Your task to perform on an android device: install app "Microsoft Authenticator" Image 0: 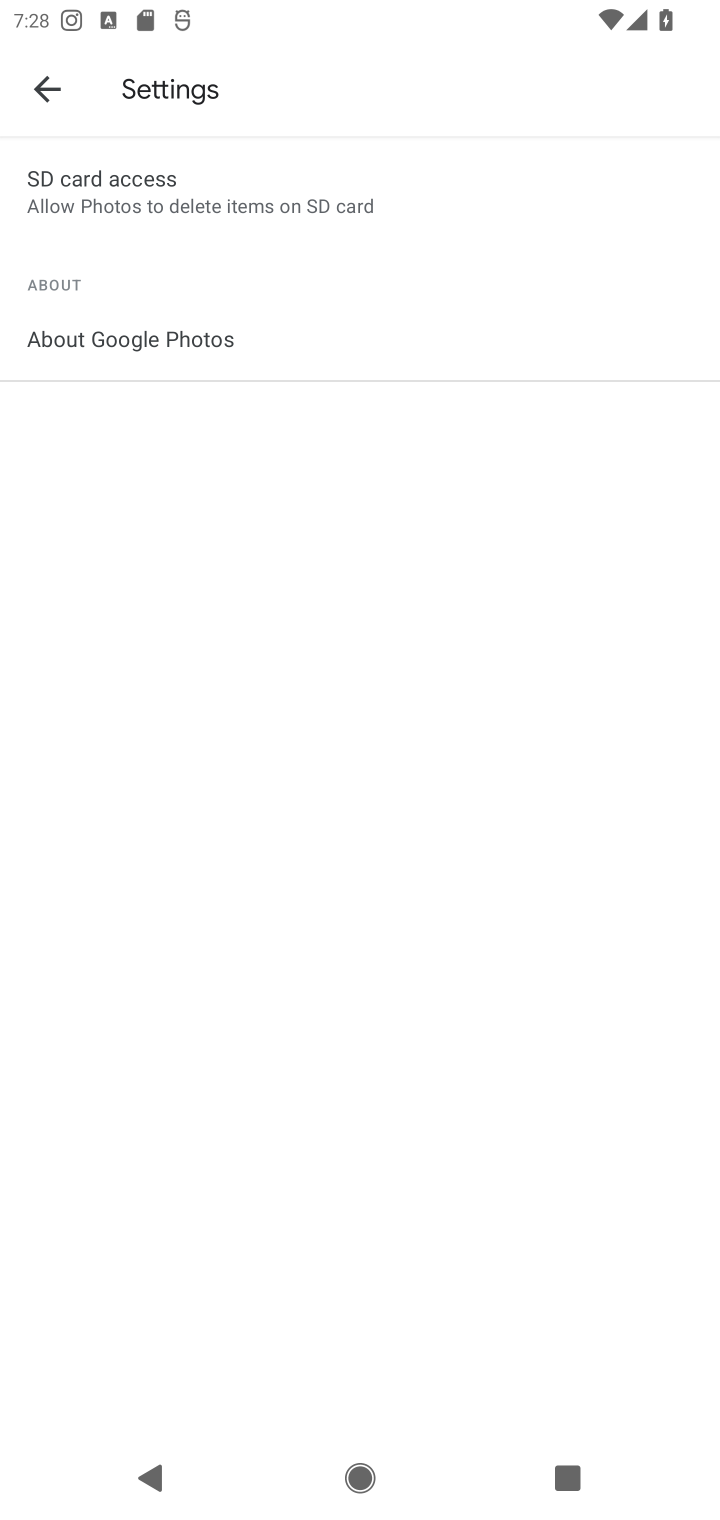
Step 0: press home button
Your task to perform on an android device: install app "Microsoft Authenticator" Image 1: 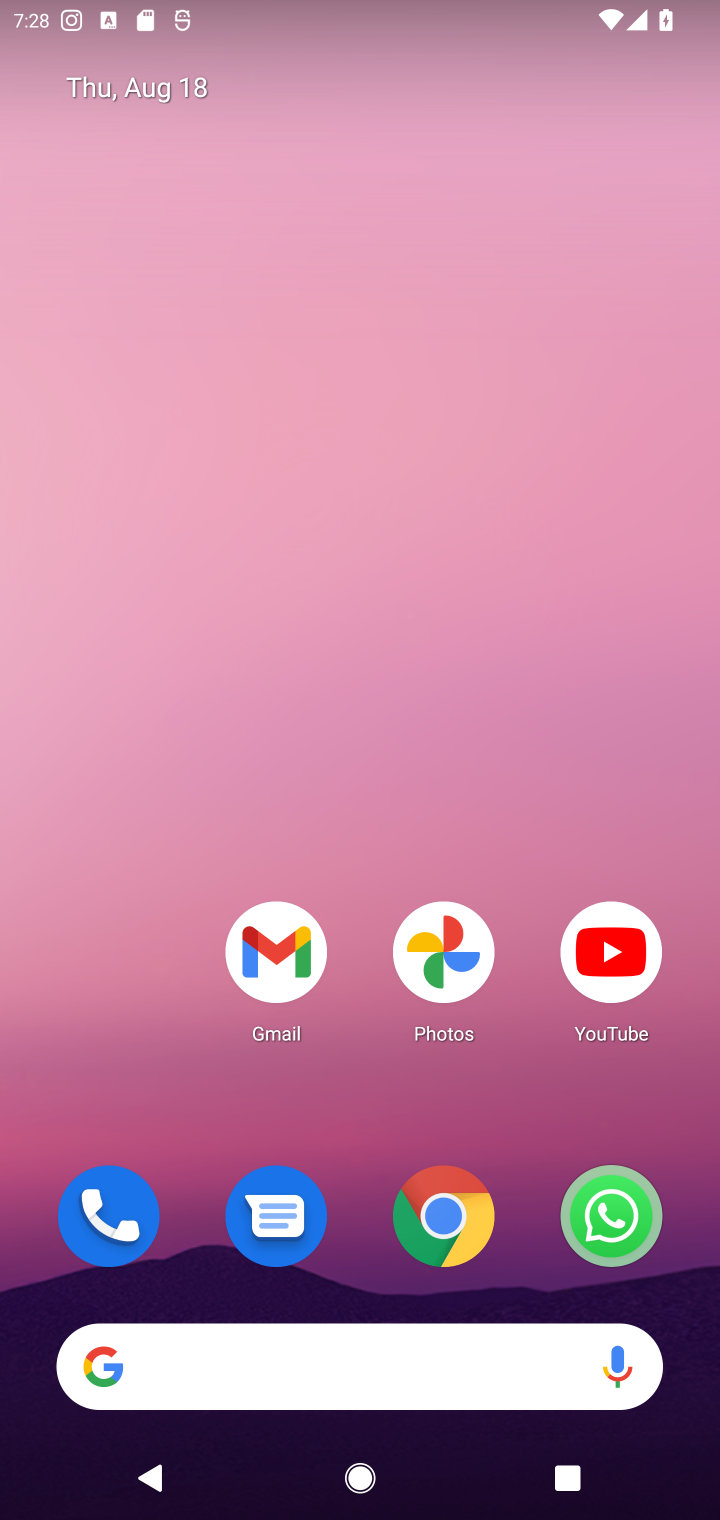
Step 1: drag from (335, 1109) to (368, 243)
Your task to perform on an android device: install app "Microsoft Authenticator" Image 2: 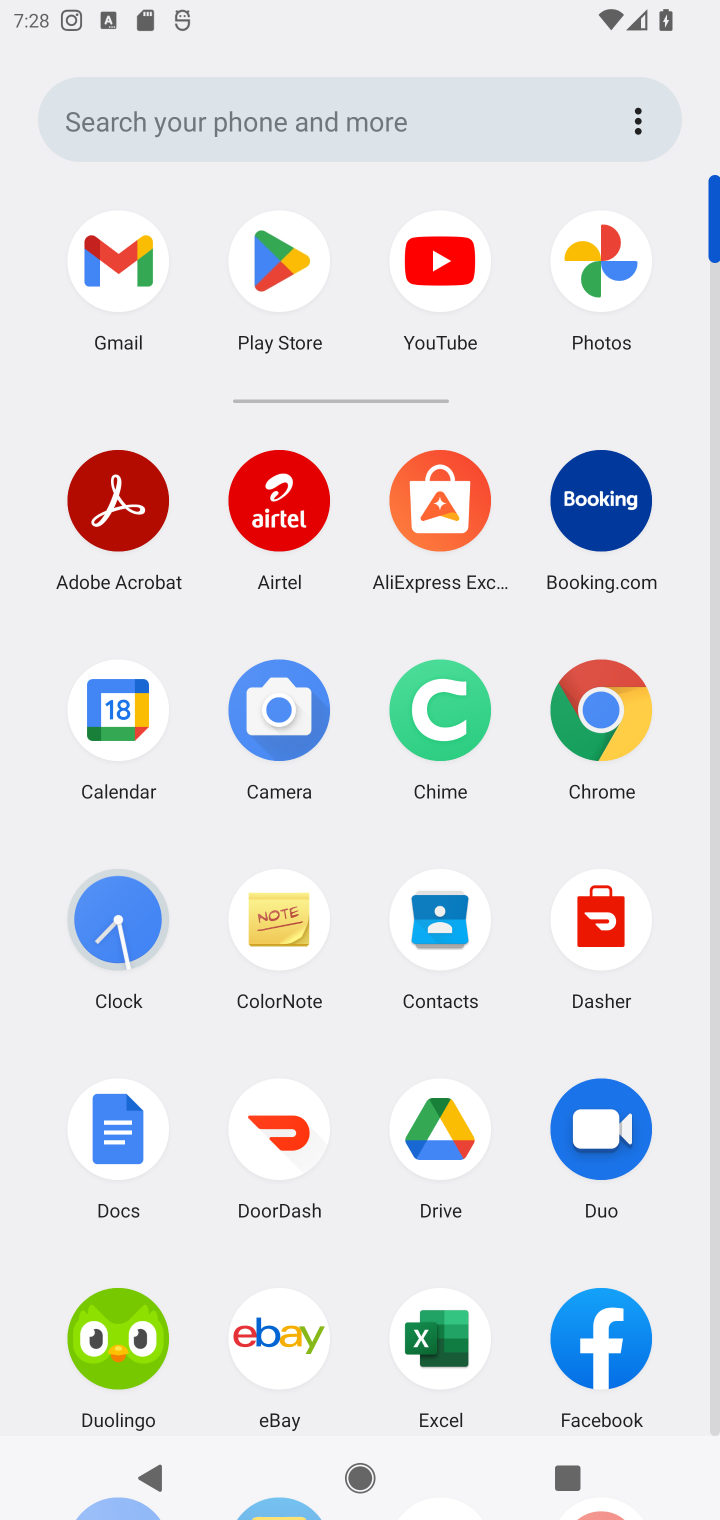
Step 2: click (309, 281)
Your task to perform on an android device: install app "Microsoft Authenticator" Image 3: 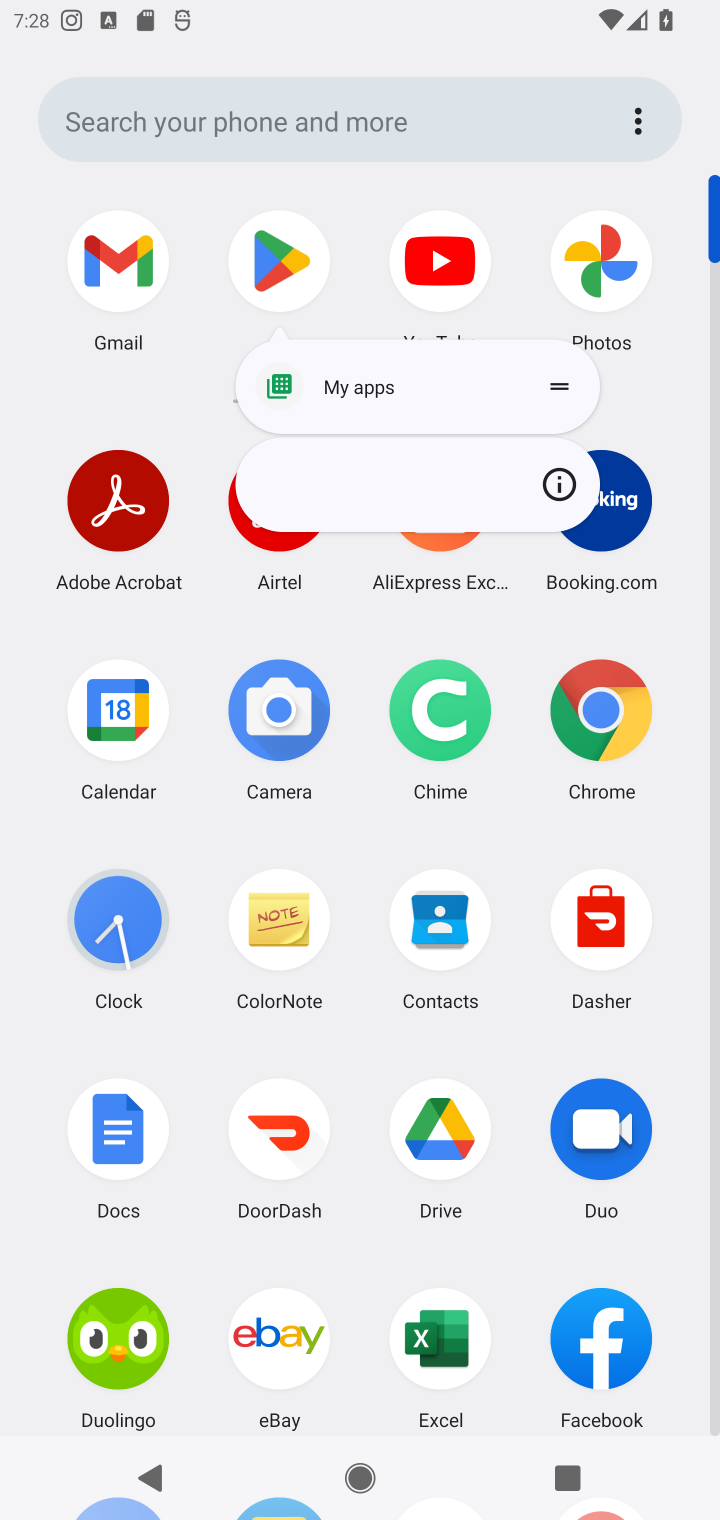
Step 3: click (292, 272)
Your task to perform on an android device: install app "Microsoft Authenticator" Image 4: 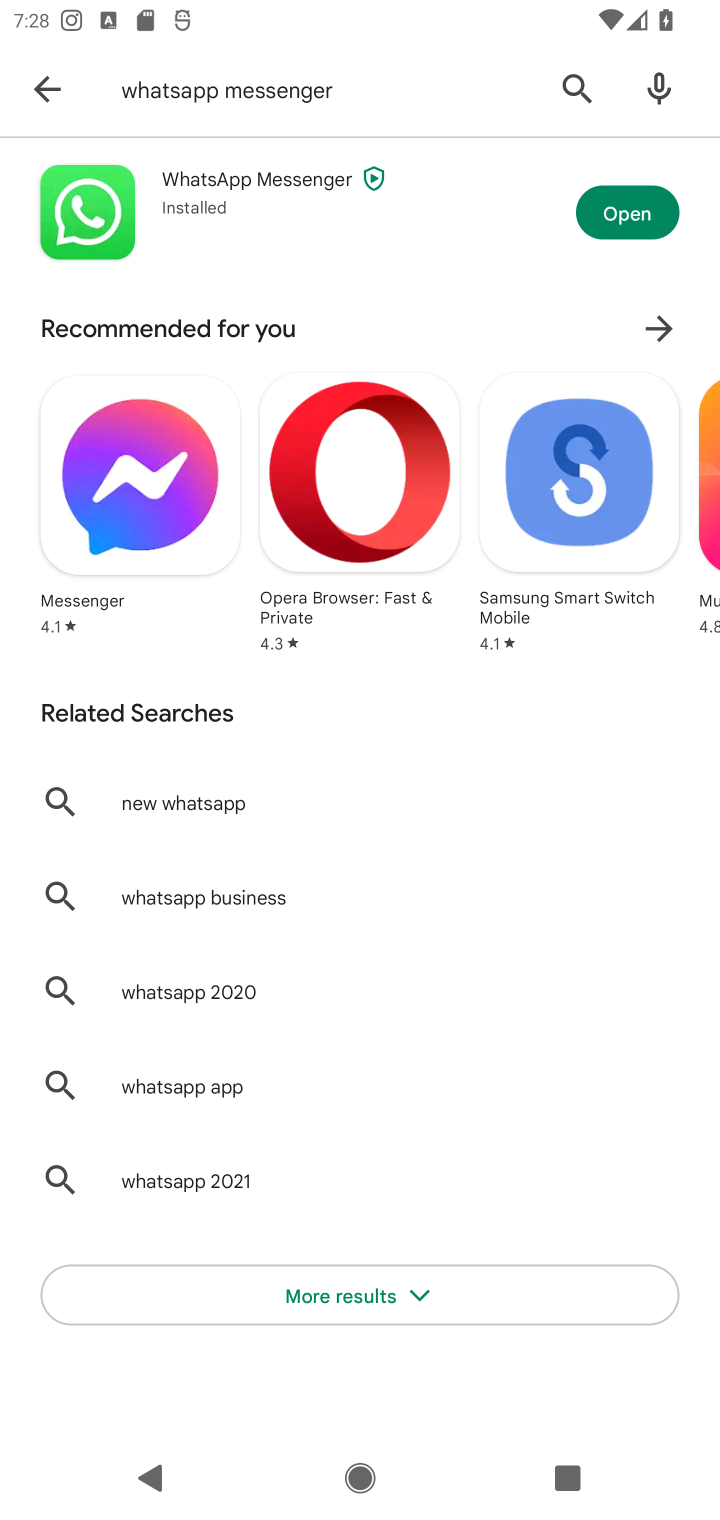
Step 4: click (574, 85)
Your task to perform on an android device: install app "Microsoft Authenticator" Image 5: 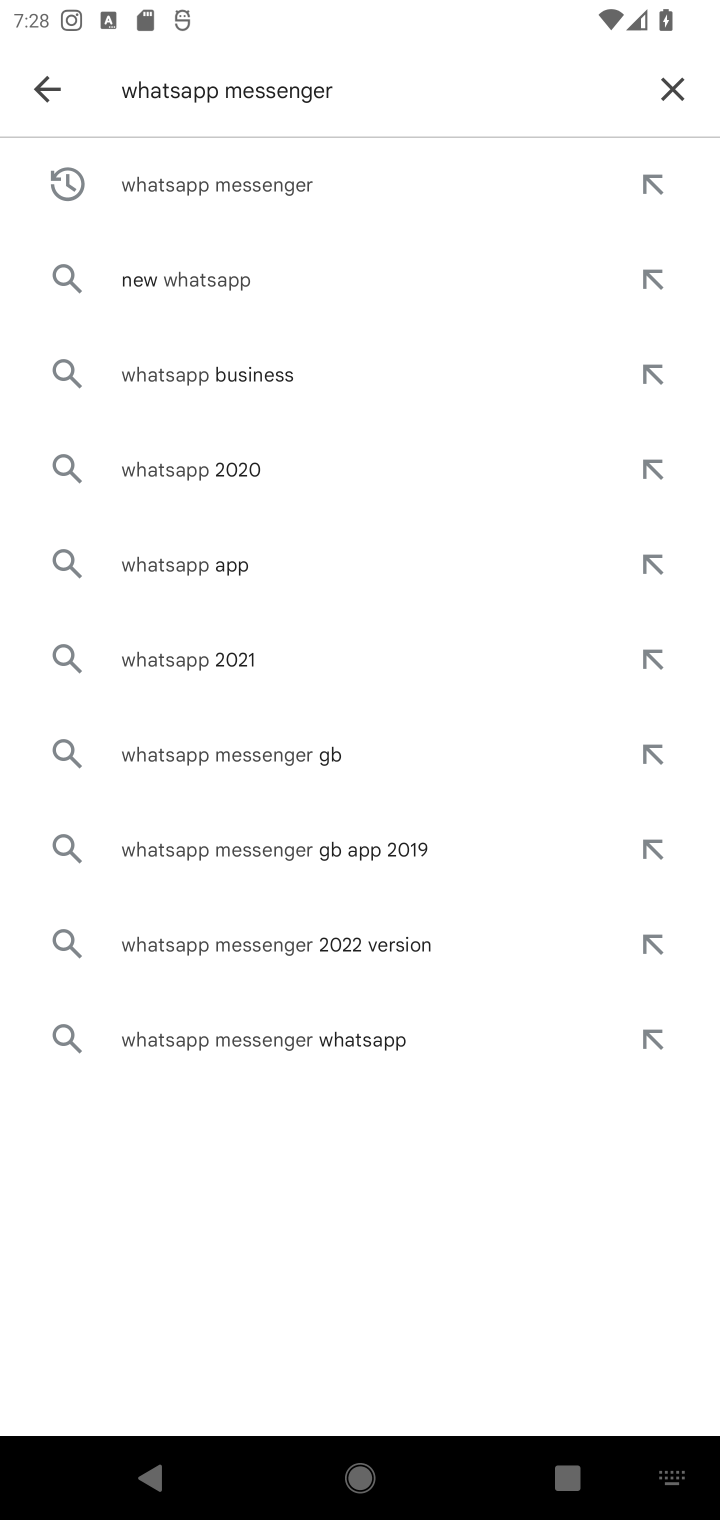
Step 5: click (653, 87)
Your task to perform on an android device: install app "Microsoft Authenticator" Image 6: 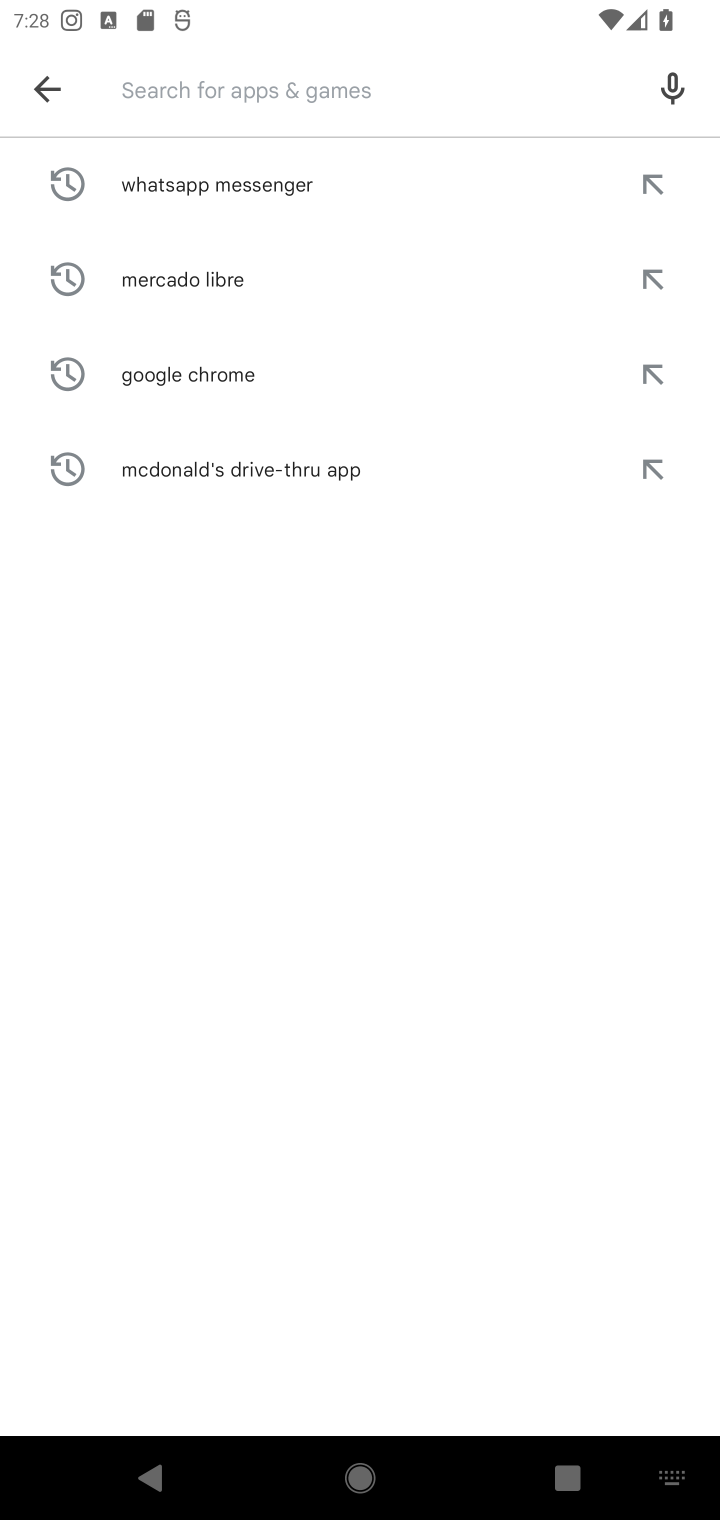
Step 6: type "Microsoft Authenticator"
Your task to perform on an android device: install app "Microsoft Authenticator" Image 7: 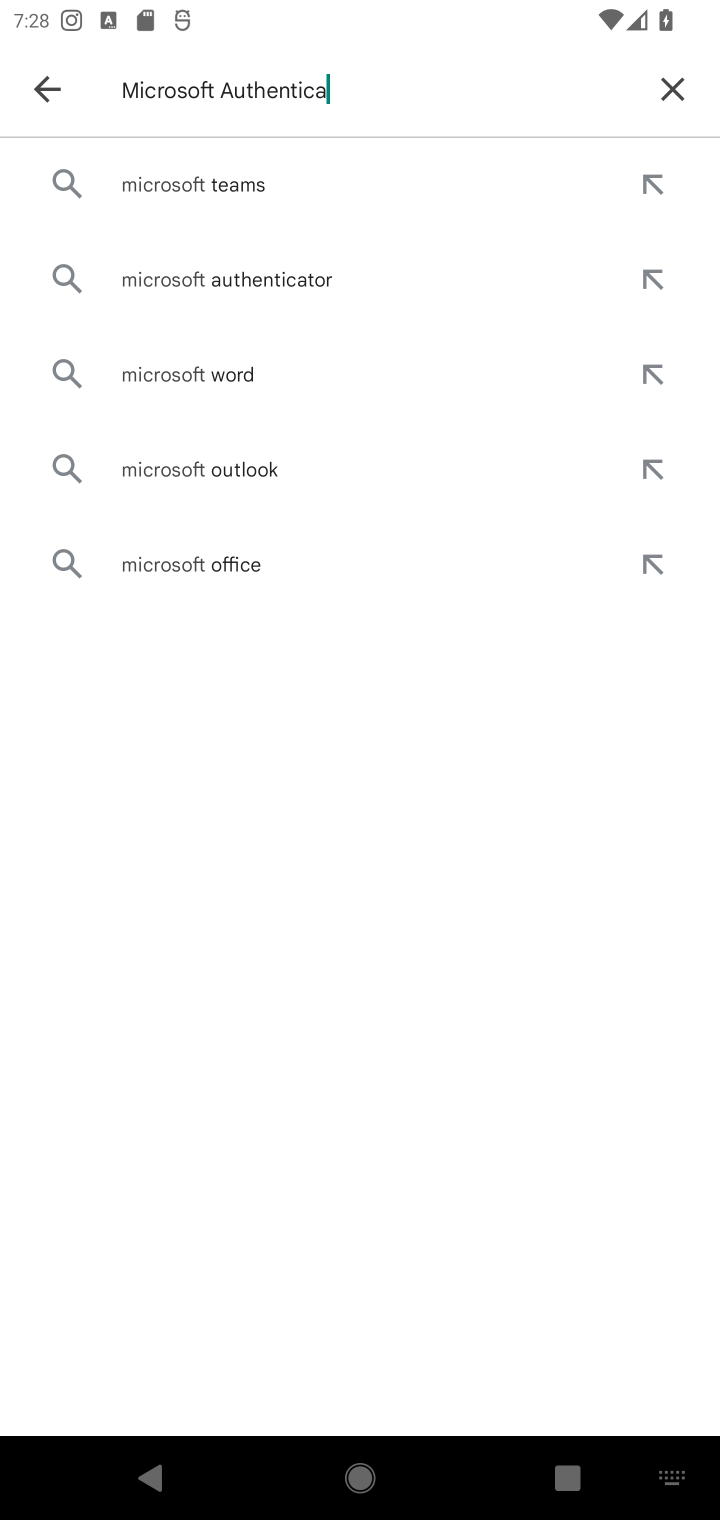
Step 7: type ""
Your task to perform on an android device: install app "Microsoft Authenticator" Image 8: 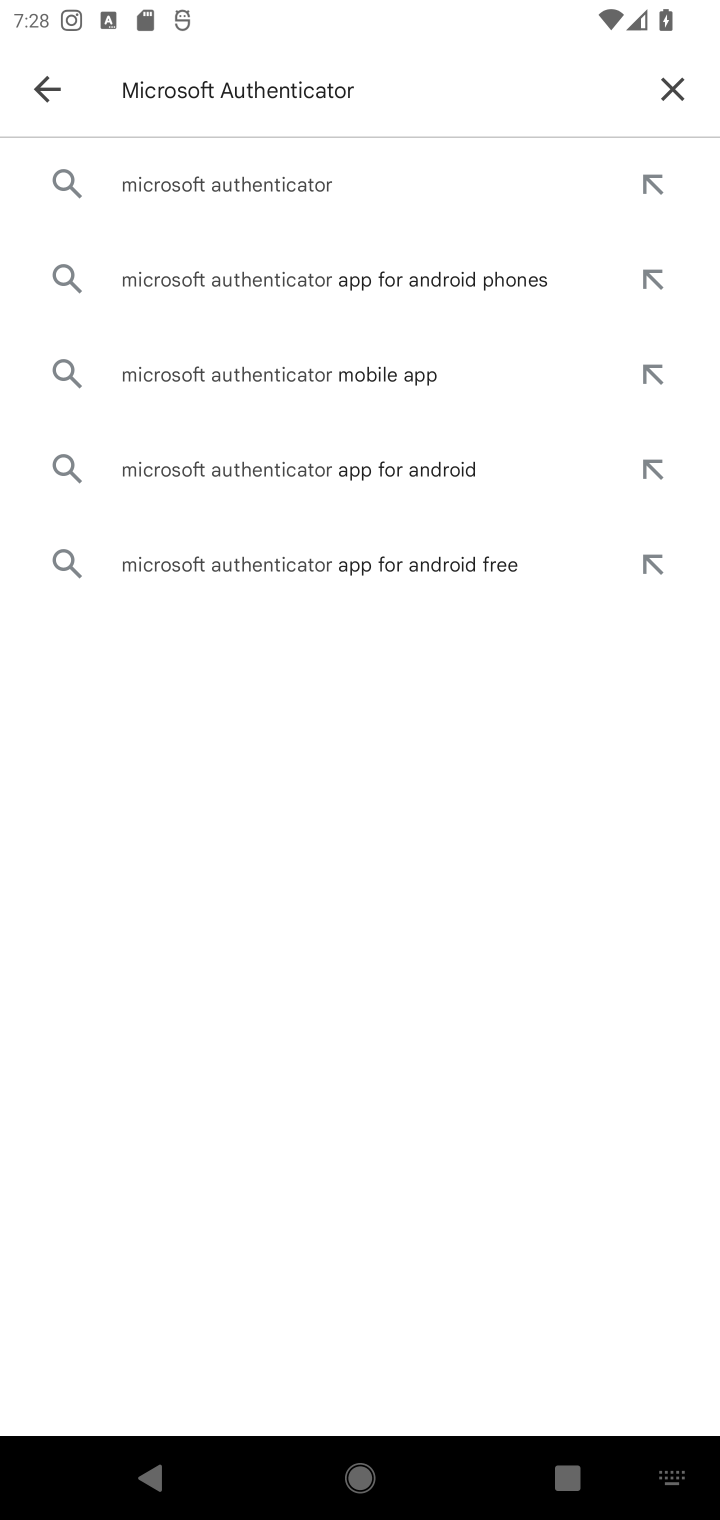
Step 8: click (296, 191)
Your task to perform on an android device: install app "Microsoft Authenticator" Image 9: 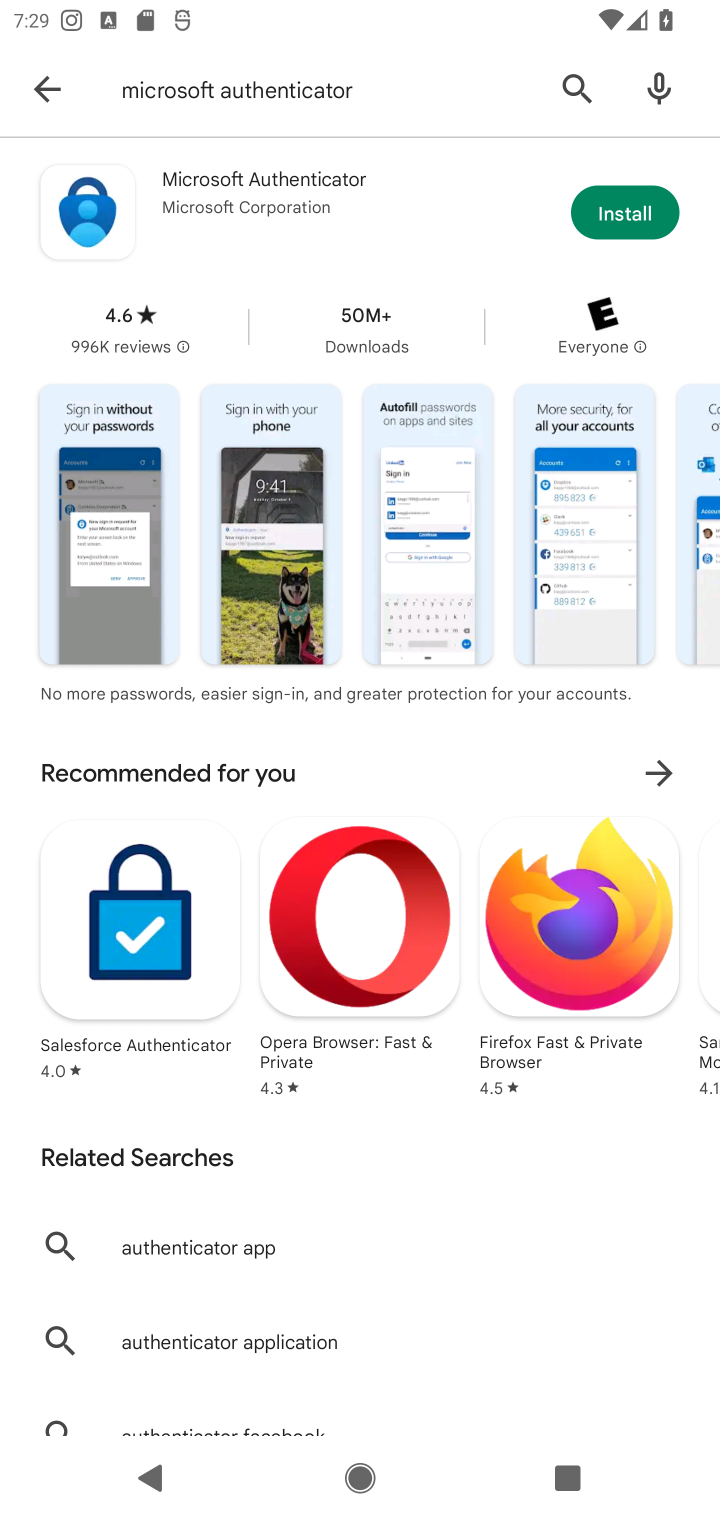
Step 9: click (621, 224)
Your task to perform on an android device: install app "Microsoft Authenticator" Image 10: 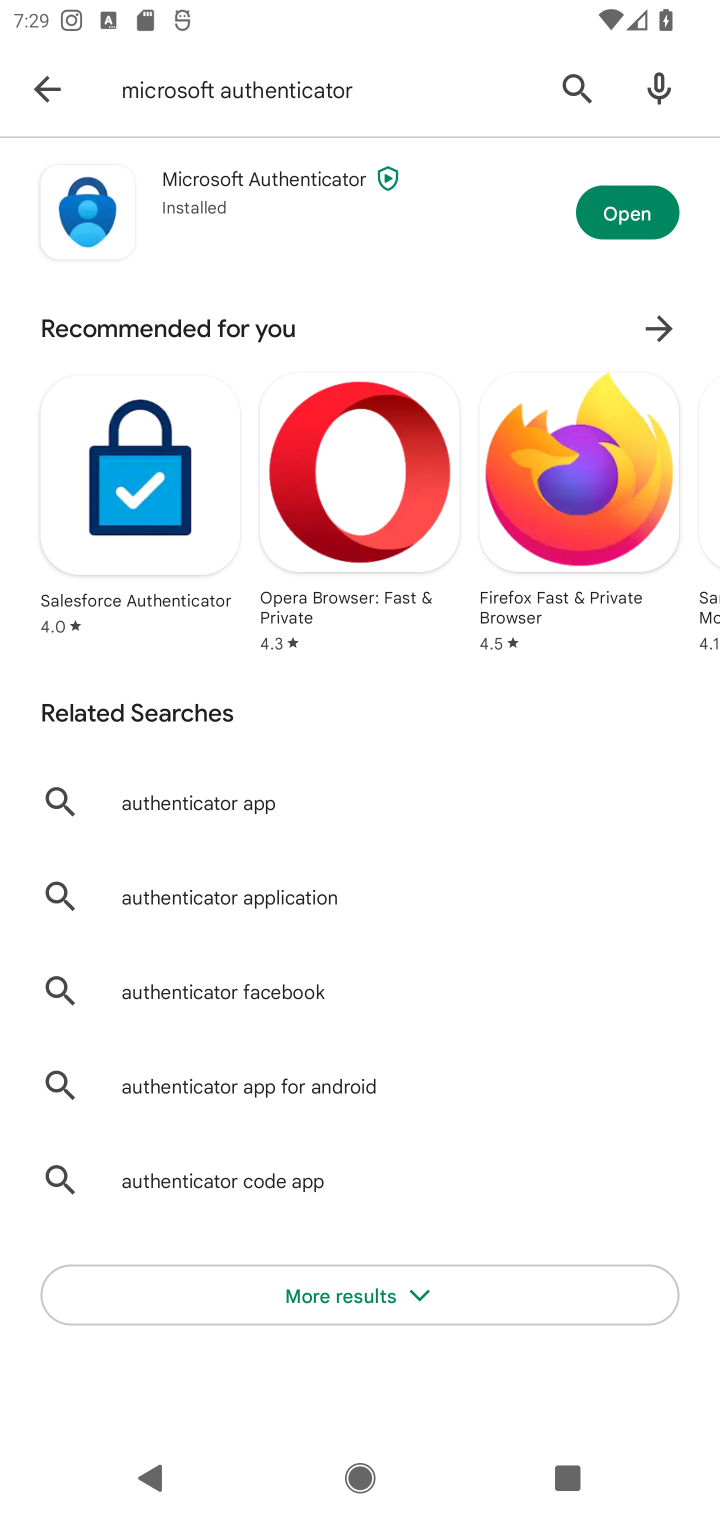
Step 10: task complete